Your task to perform on an android device: turn off notifications in google photos Image 0: 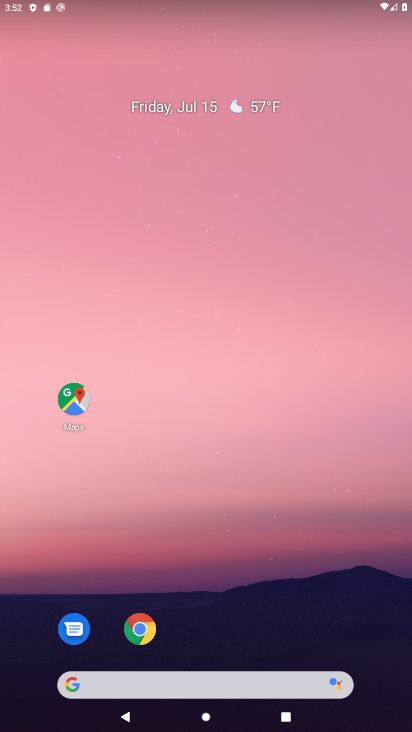
Step 0: press home button
Your task to perform on an android device: turn off notifications in google photos Image 1: 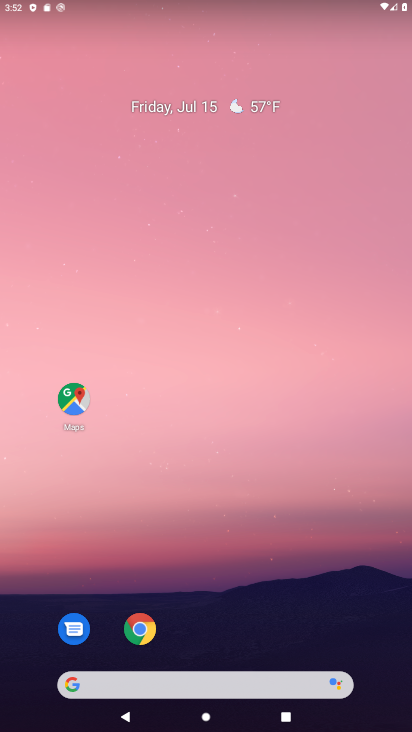
Step 1: drag from (328, 482) to (411, 75)
Your task to perform on an android device: turn off notifications in google photos Image 2: 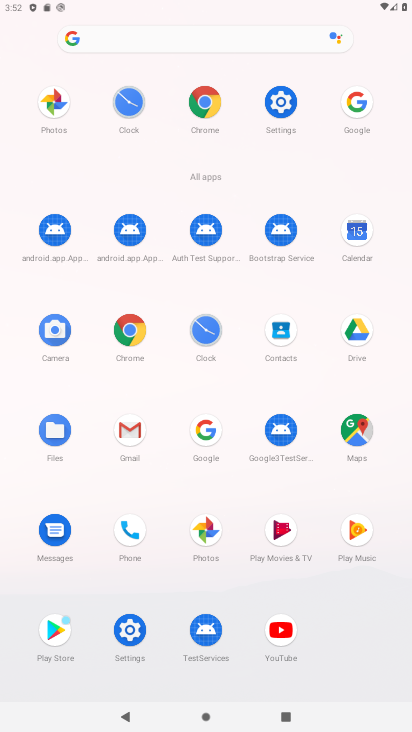
Step 2: click (197, 522)
Your task to perform on an android device: turn off notifications in google photos Image 3: 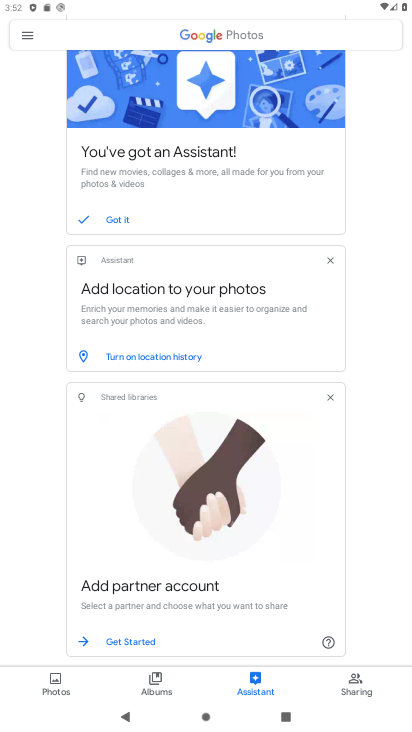
Step 3: click (24, 35)
Your task to perform on an android device: turn off notifications in google photos Image 4: 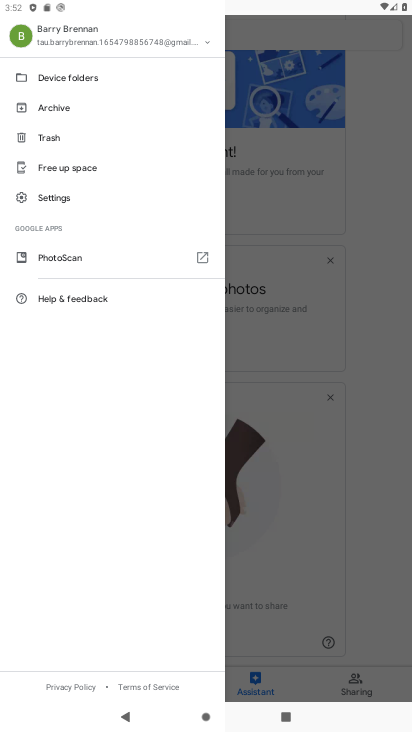
Step 4: click (59, 197)
Your task to perform on an android device: turn off notifications in google photos Image 5: 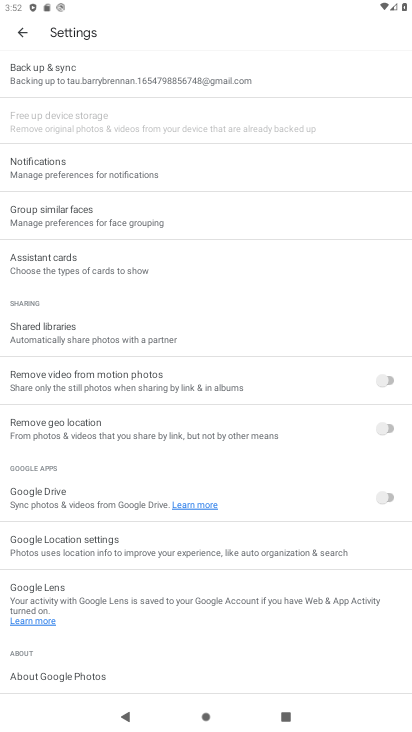
Step 5: click (59, 170)
Your task to perform on an android device: turn off notifications in google photos Image 6: 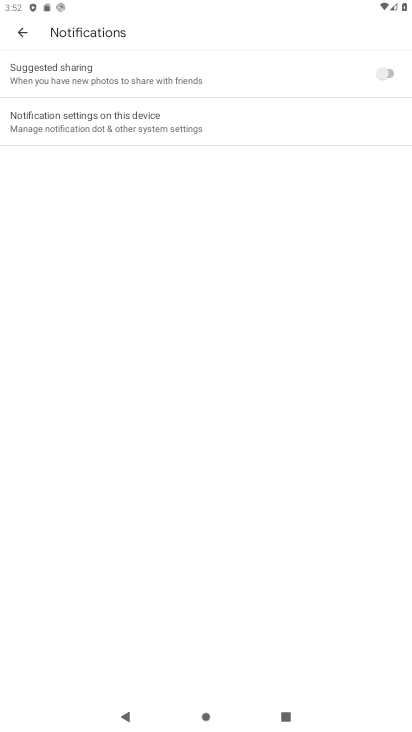
Step 6: click (44, 115)
Your task to perform on an android device: turn off notifications in google photos Image 7: 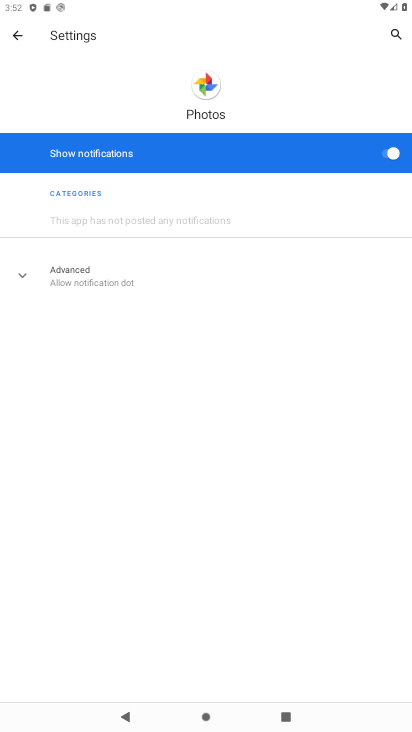
Step 7: click (389, 157)
Your task to perform on an android device: turn off notifications in google photos Image 8: 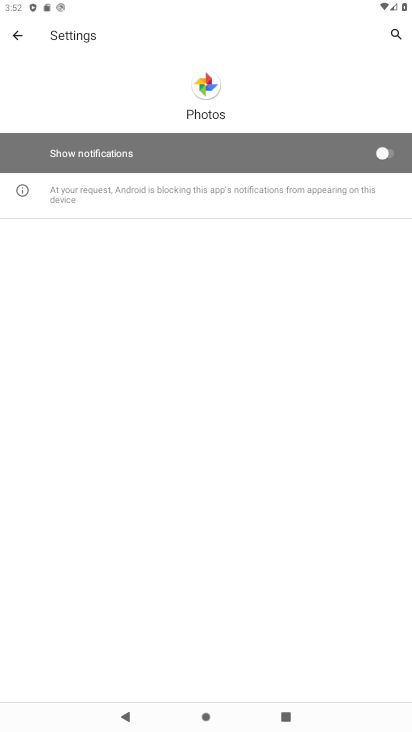
Step 8: task complete